Your task to perform on an android device: remove spam from my inbox in the gmail app Image 0: 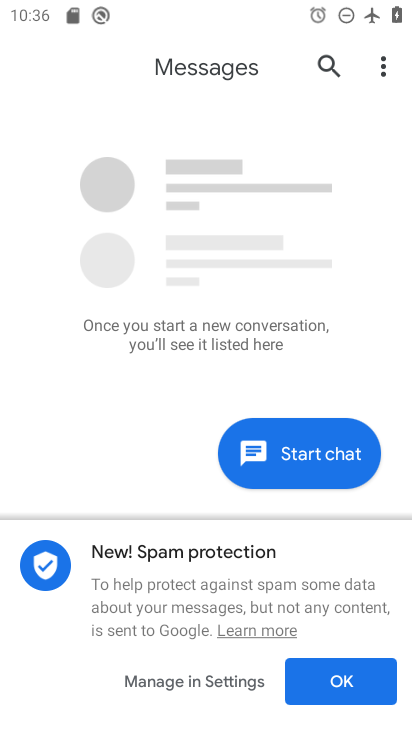
Step 0: press home button
Your task to perform on an android device: remove spam from my inbox in the gmail app Image 1: 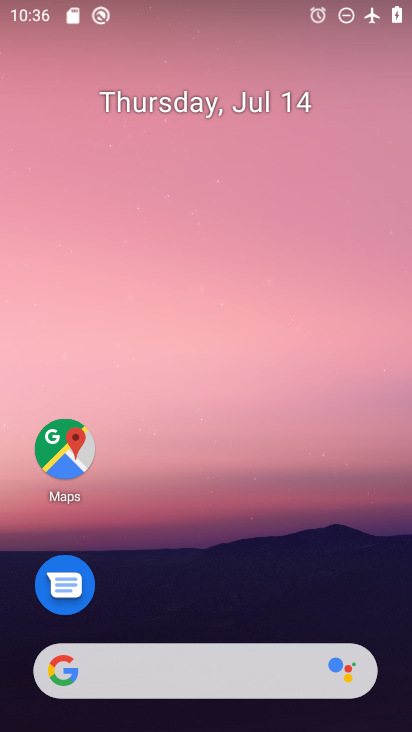
Step 1: drag from (201, 626) to (129, 70)
Your task to perform on an android device: remove spam from my inbox in the gmail app Image 2: 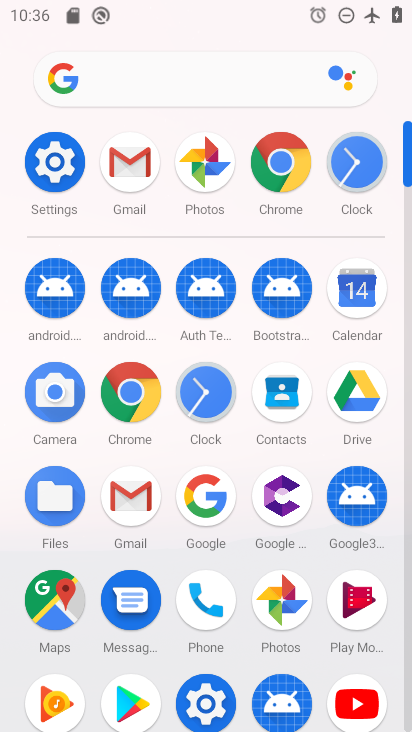
Step 2: click (129, 499)
Your task to perform on an android device: remove spam from my inbox in the gmail app Image 3: 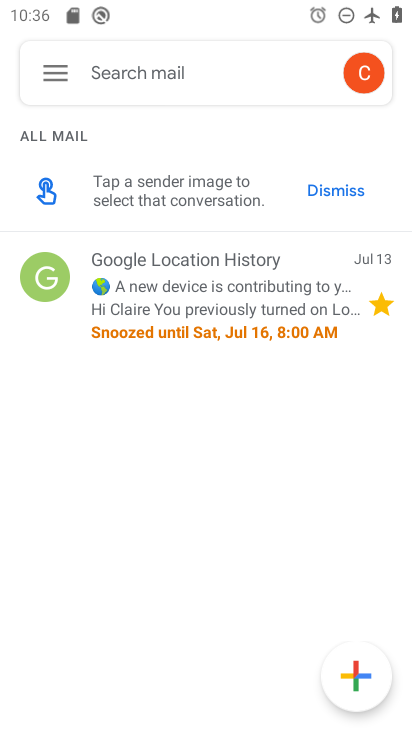
Step 3: click (54, 83)
Your task to perform on an android device: remove spam from my inbox in the gmail app Image 4: 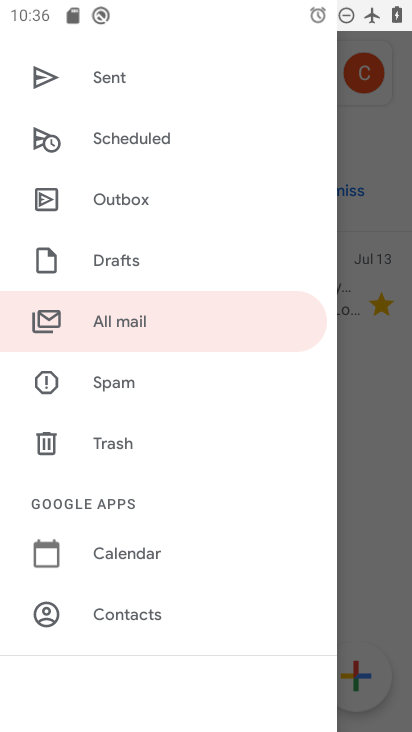
Step 4: drag from (189, 167) to (169, 310)
Your task to perform on an android device: remove spam from my inbox in the gmail app Image 5: 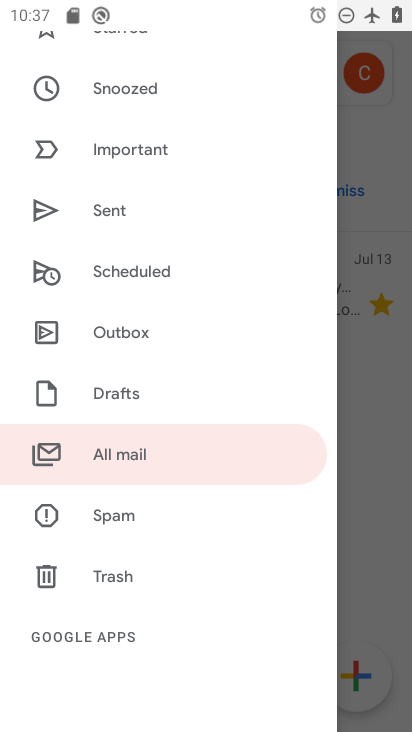
Step 5: click (81, 505)
Your task to perform on an android device: remove spam from my inbox in the gmail app Image 6: 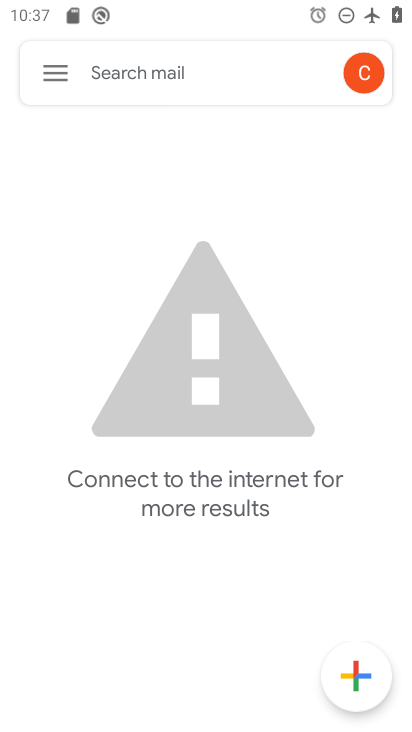
Step 6: task complete